Your task to perform on an android device: turn on the 12-hour format for clock Image 0: 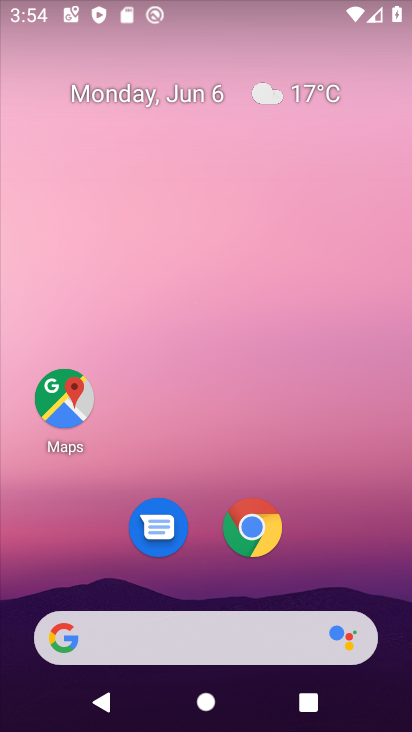
Step 0: drag from (242, 486) to (226, 202)
Your task to perform on an android device: turn on the 12-hour format for clock Image 1: 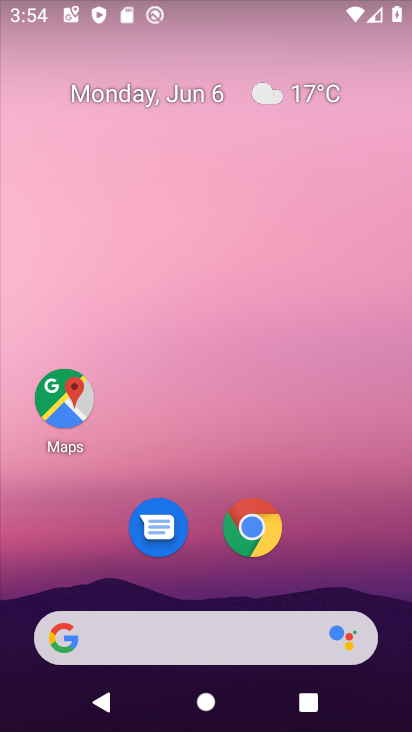
Step 1: drag from (208, 483) to (208, 311)
Your task to perform on an android device: turn on the 12-hour format for clock Image 2: 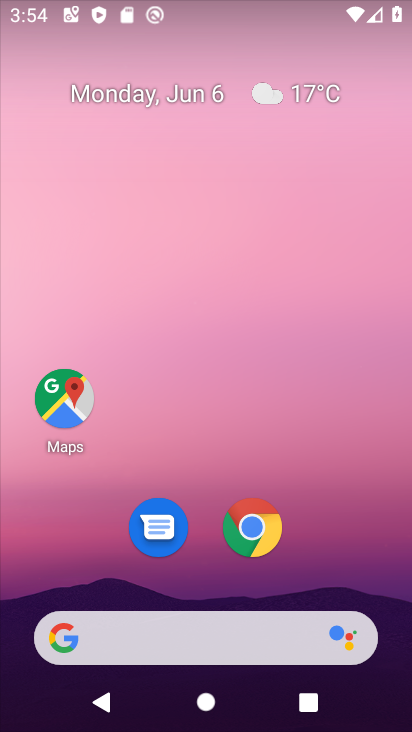
Step 2: drag from (210, 577) to (210, 308)
Your task to perform on an android device: turn on the 12-hour format for clock Image 3: 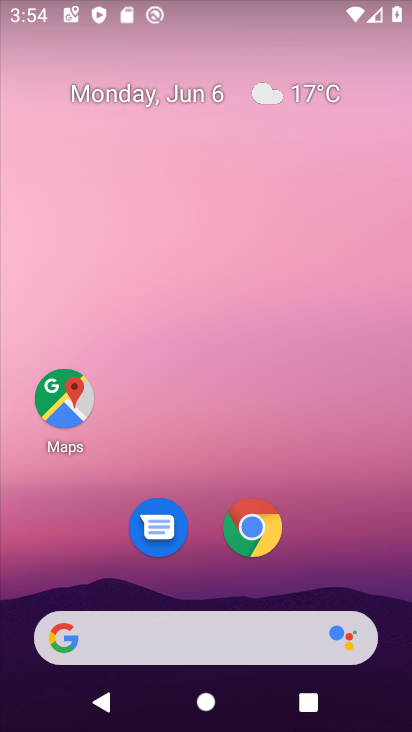
Step 3: drag from (208, 585) to (209, 188)
Your task to perform on an android device: turn on the 12-hour format for clock Image 4: 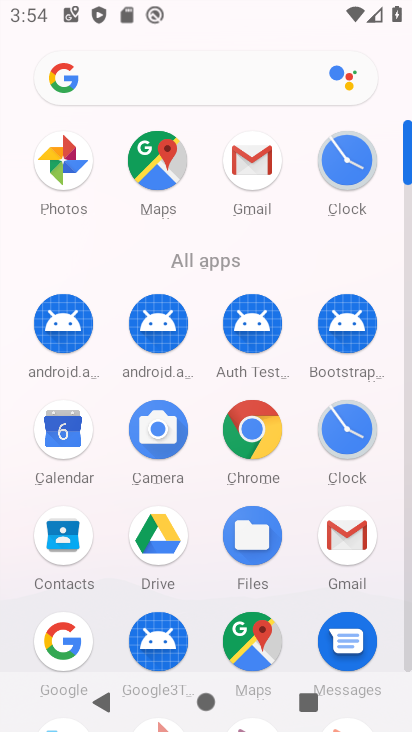
Step 4: drag from (274, 576) to (275, 187)
Your task to perform on an android device: turn on the 12-hour format for clock Image 5: 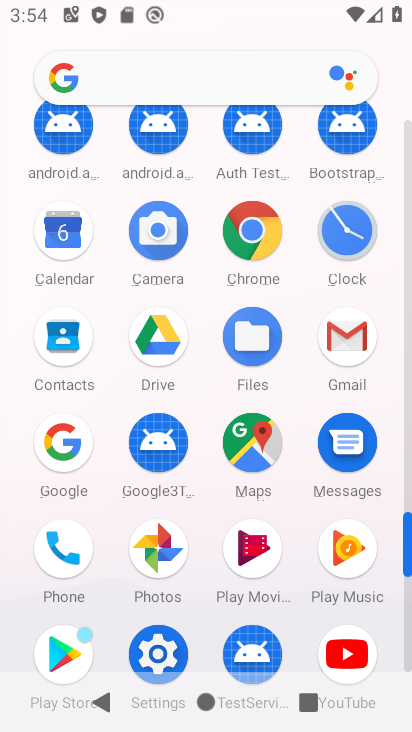
Step 5: click (346, 241)
Your task to perform on an android device: turn on the 12-hour format for clock Image 6: 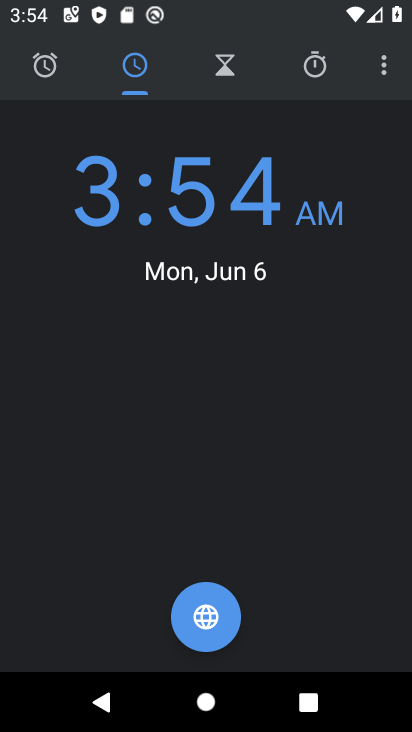
Step 6: click (378, 69)
Your task to perform on an android device: turn on the 12-hour format for clock Image 7: 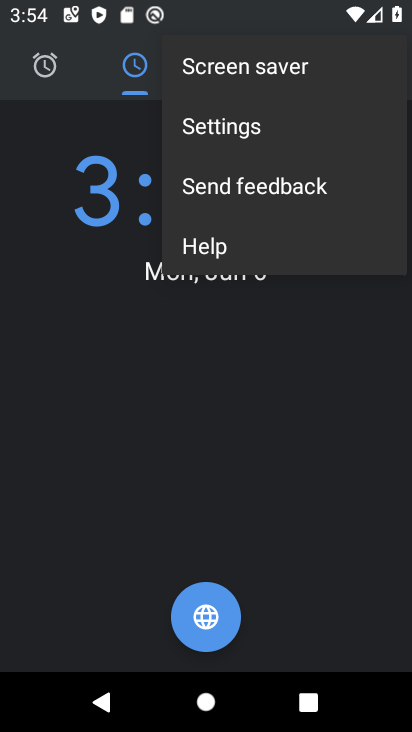
Step 7: click (252, 123)
Your task to perform on an android device: turn on the 12-hour format for clock Image 8: 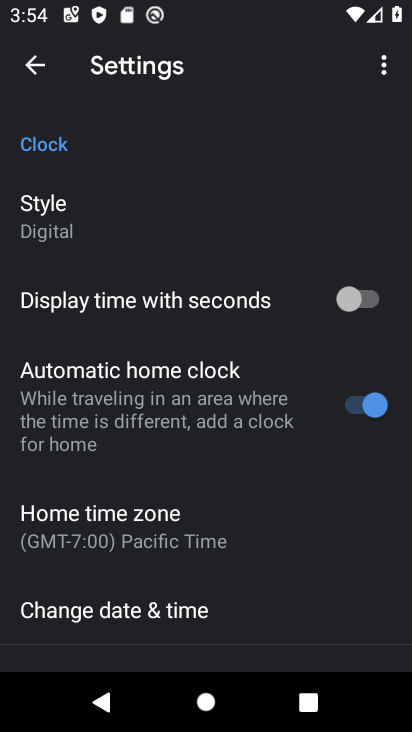
Step 8: drag from (135, 489) to (123, 208)
Your task to perform on an android device: turn on the 12-hour format for clock Image 9: 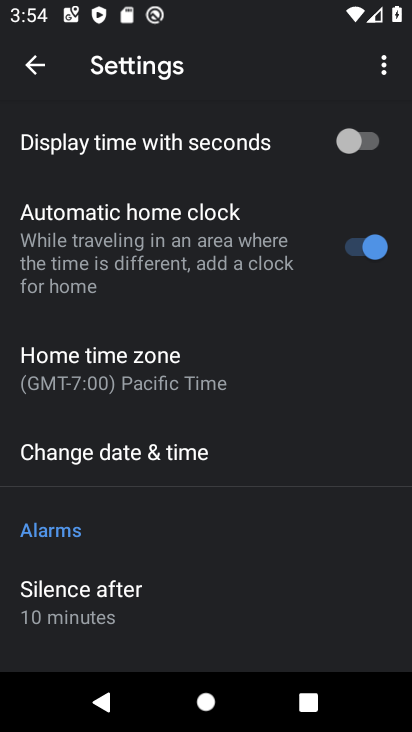
Step 9: click (93, 461)
Your task to perform on an android device: turn on the 12-hour format for clock Image 10: 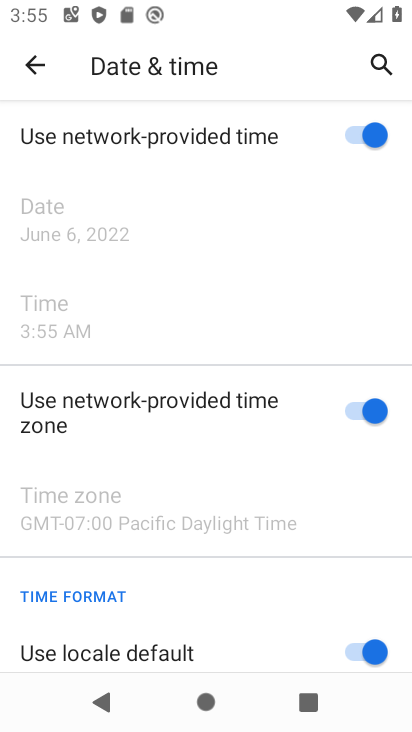
Step 10: task complete